Your task to perform on an android device: Open the stopwatch Image 0: 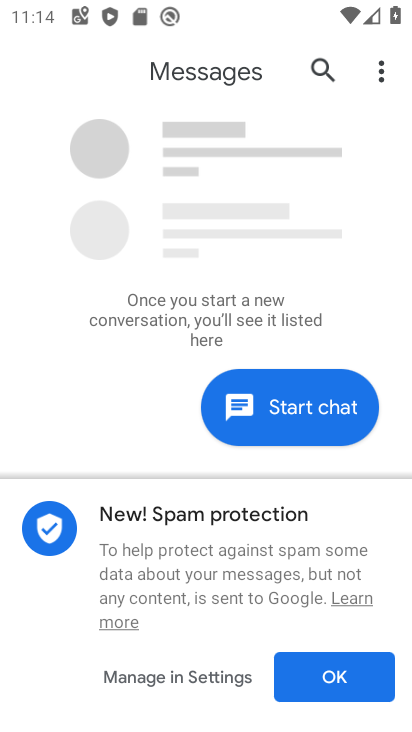
Step 0: press home button
Your task to perform on an android device: Open the stopwatch Image 1: 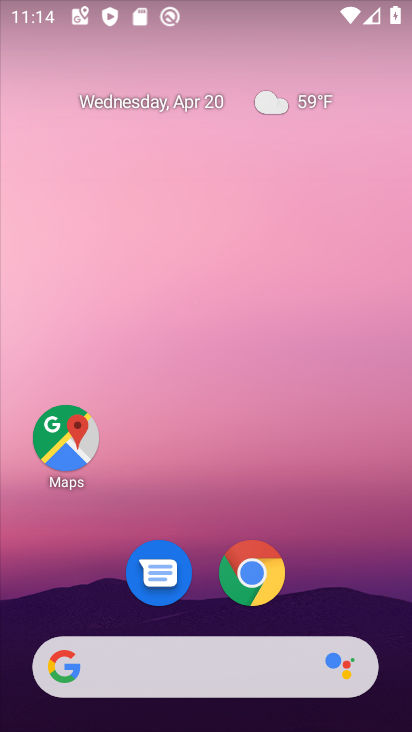
Step 1: drag from (406, 623) to (378, 29)
Your task to perform on an android device: Open the stopwatch Image 2: 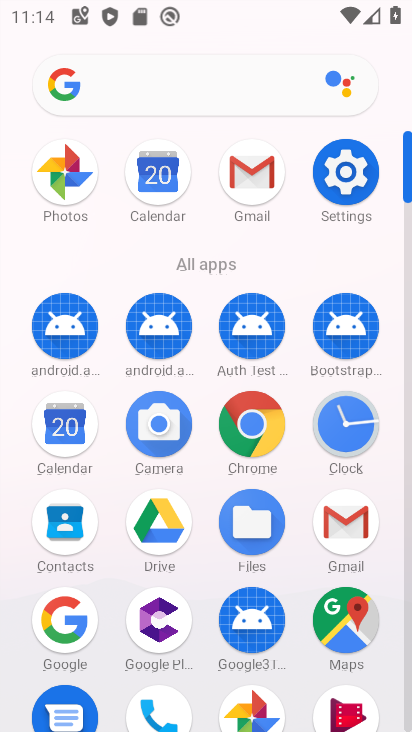
Step 2: click (346, 421)
Your task to perform on an android device: Open the stopwatch Image 3: 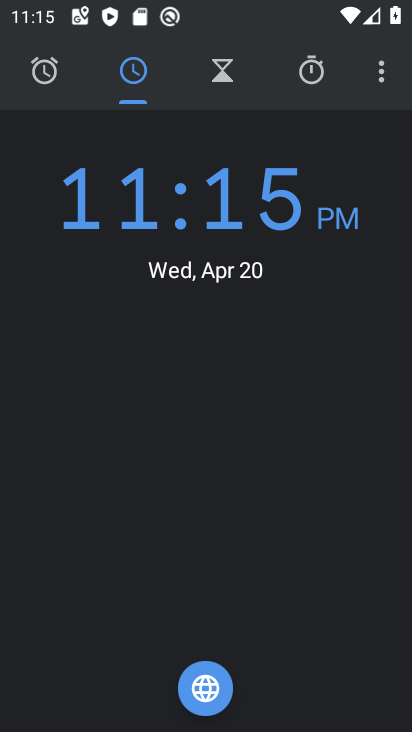
Step 3: click (312, 76)
Your task to perform on an android device: Open the stopwatch Image 4: 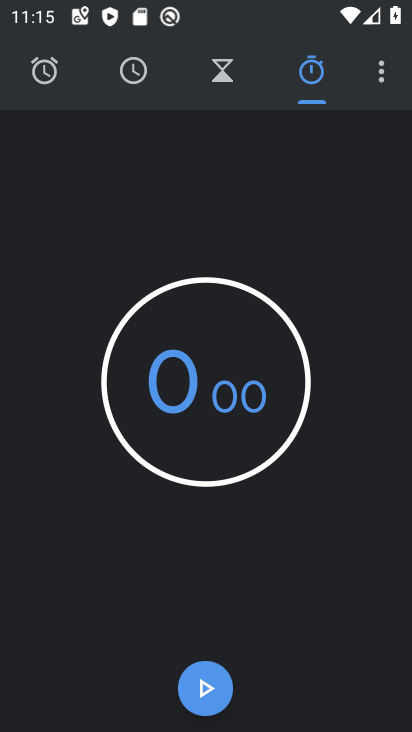
Step 4: task complete